Your task to perform on an android device: open sync settings in chrome Image 0: 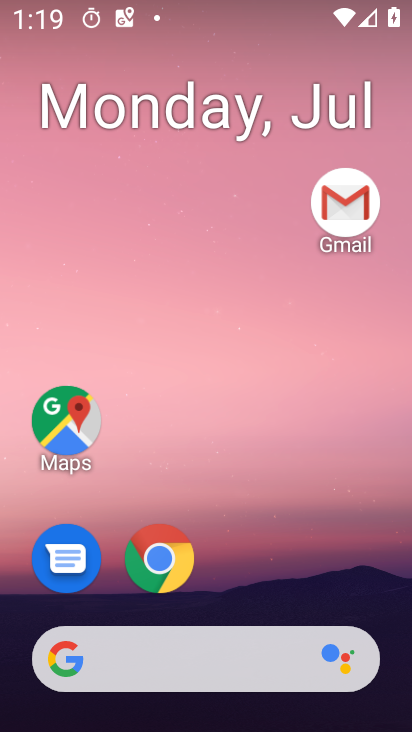
Step 0: drag from (370, 562) to (375, 75)
Your task to perform on an android device: open sync settings in chrome Image 1: 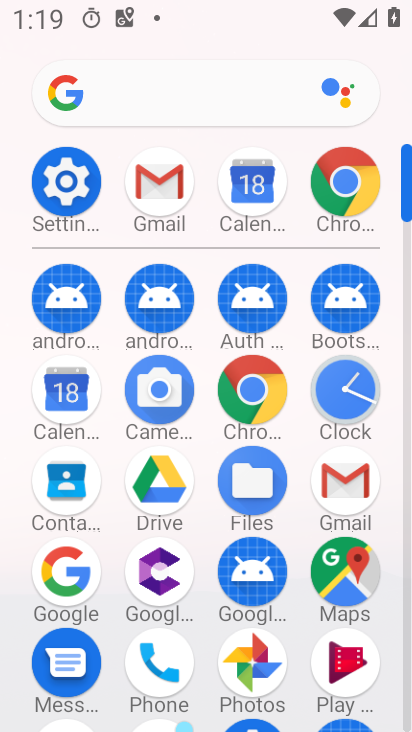
Step 1: click (262, 405)
Your task to perform on an android device: open sync settings in chrome Image 2: 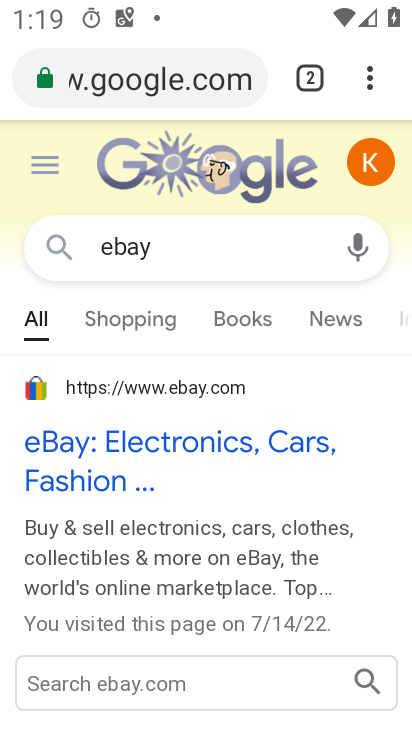
Step 2: click (368, 84)
Your task to perform on an android device: open sync settings in chrome Image 3: 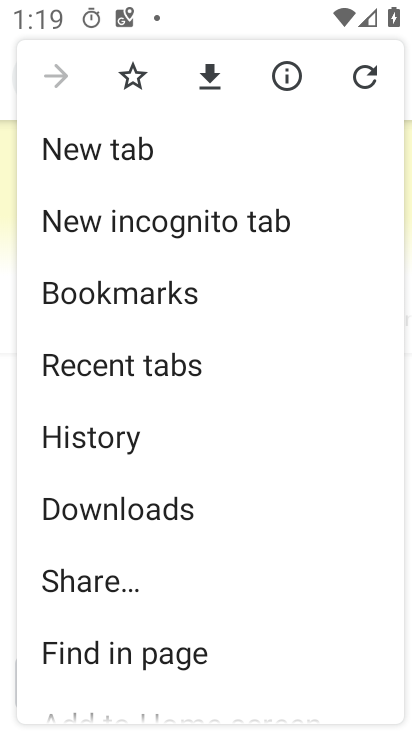
Step 3: drag from (300, 501) to (317, 420)
Your task to perform on an android device: open sync settings in chrome Image 4: 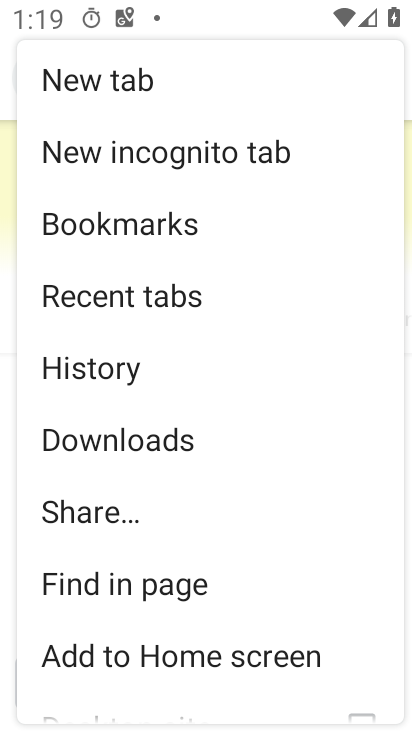
Step 4: drag from (317, 491) to (317, 413)
Your task to perform on an android device: open sync settings in chrome Image 5: 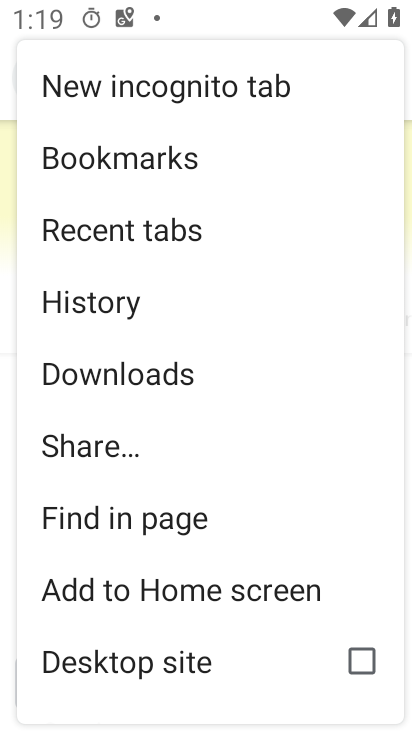
Step 5: drag from (316, 503) to (323, 402)
Your task to perform on an android device: open sync settings in chrome Image 6: 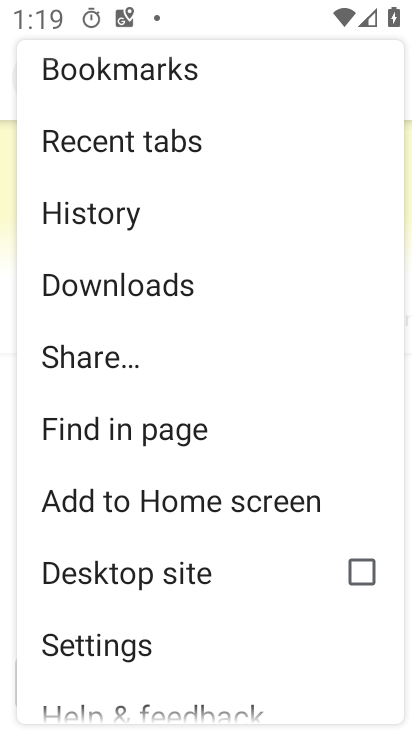
Step 6: drag from (292, 566) to (316, 431)
Your task to perform on an android device: open sync settings in chrome Image 7: 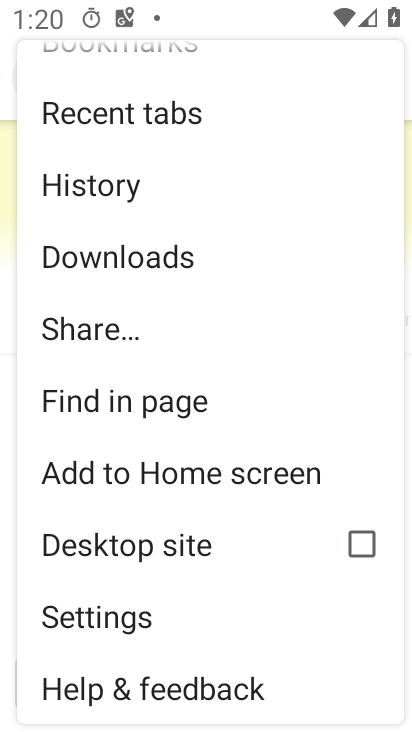
Step 7: click (230, 624)
Your task to perform on an android device: open sync settings in chrome Image 8: 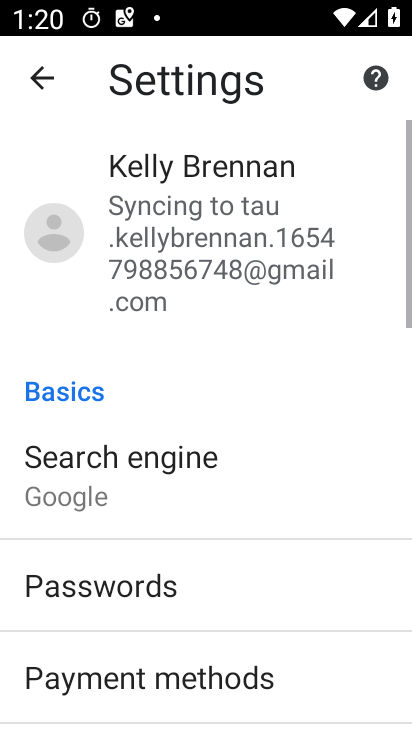
Step 8: drag from (283, 597) to (302, 501)
Your task to perform on an android device: open sync settings in chrome Image 9: 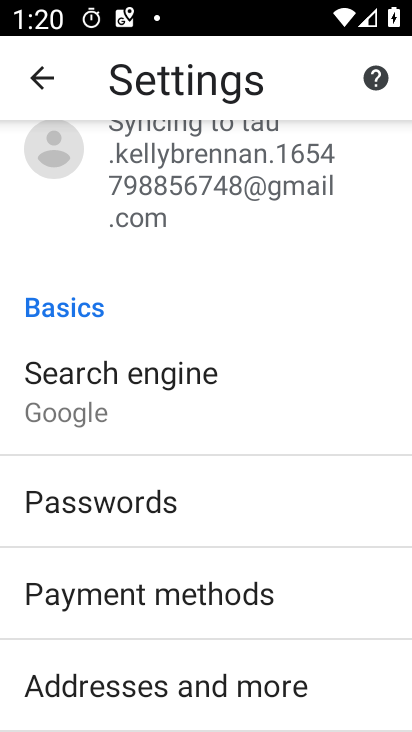
Step 9: drag from (330, 580) to (350, 474)
Your task to perform on an android device: open sync settings in chrome Image 10: 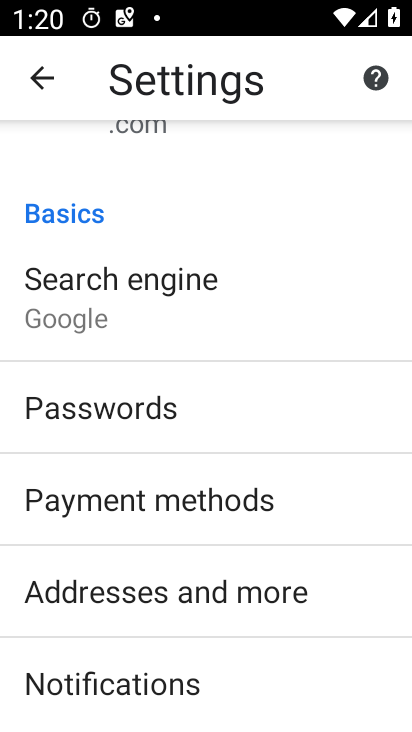
Step 10: drag from (354, 572) to (364, 488)
Your task to perform on an android device: open sync settings in chrome Image 11: 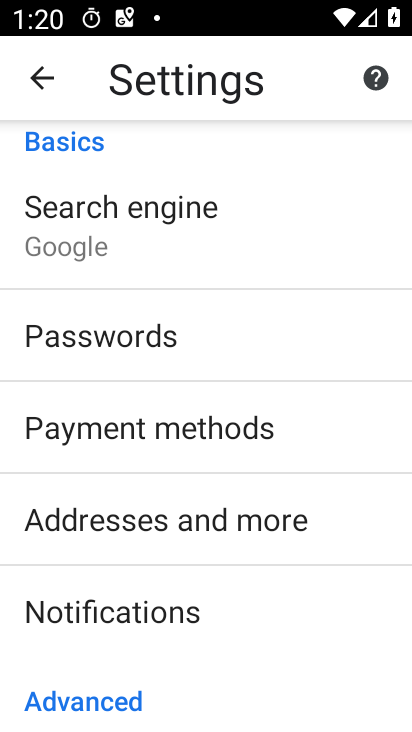
Step 11: drag from (342, 595) to (352, 511)
Your task to perform on an android device: open sync settings in chrome Image 12: 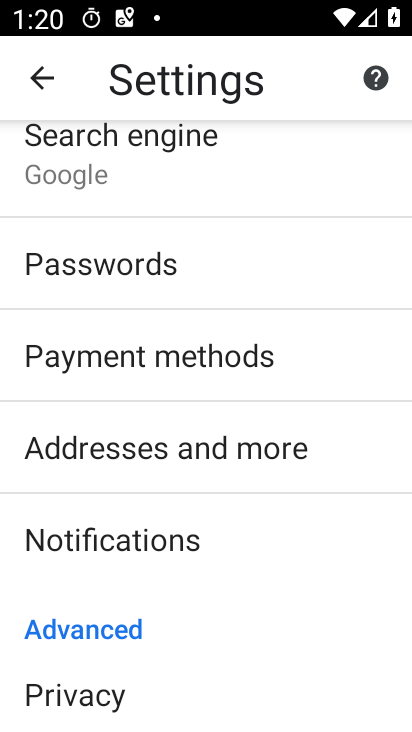
Step 12: drag from (352, 576) to (351, 466)
Your task to perform on an android device: open sync settings in chrome Image 13: 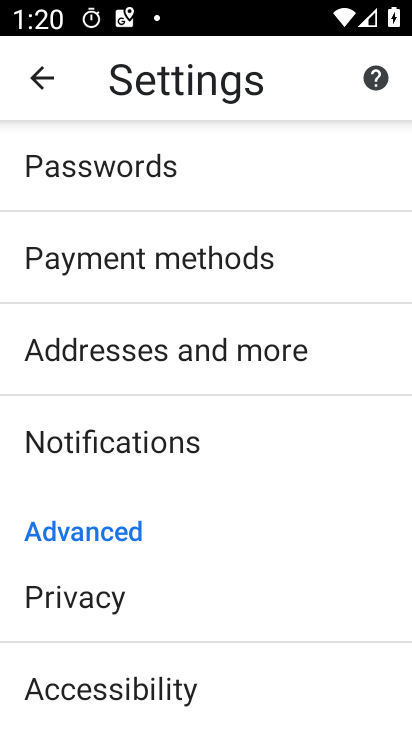
Step 13: drag from (326, 579) to (332, 484)
Your task to perform on an android device: open sync settings in chrome Image 14: 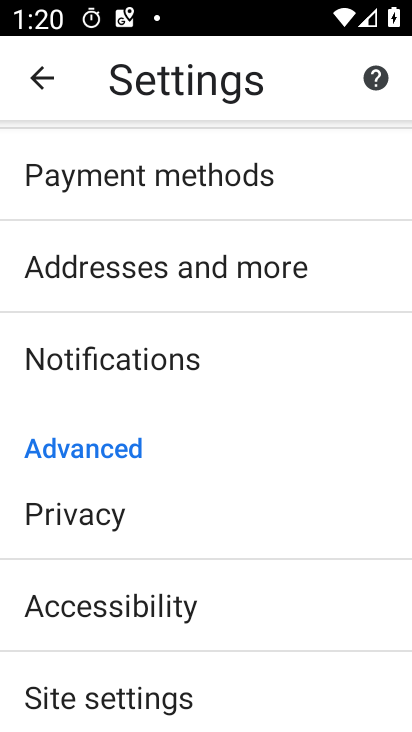
Step 14: drag from (323, 619) to (333, 519)
Your task to perform on an android device: open sync settings in chrome Image 15: 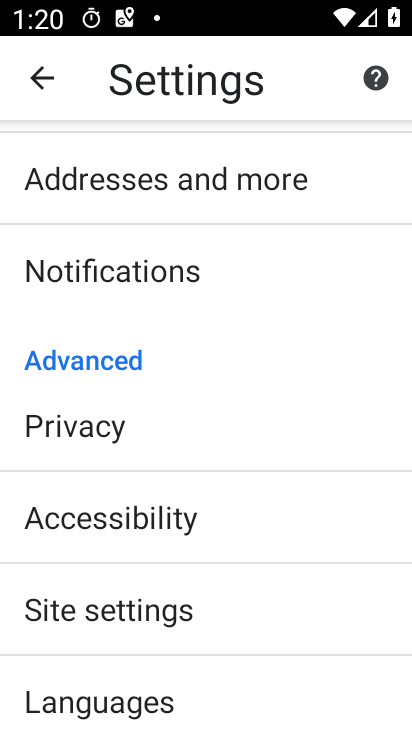
Step 15: drag from (323, 618) to (326, 518)
Your task to perform on an android device: open sync settings in chrome Image 16: 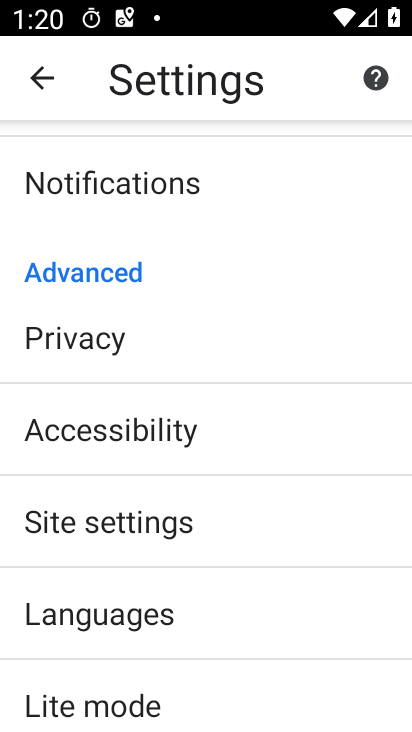
Step 16: drag from (318, 636) to (330, 416)
Your task to perform on an android device: open sync settings in chrome Image 17: 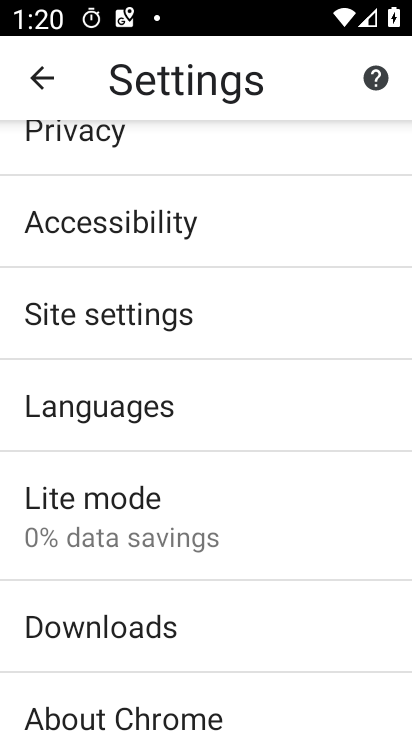
Step 17: click (199, 342)
Your task to perform on an android device: open sync settings in chrome Image 18: 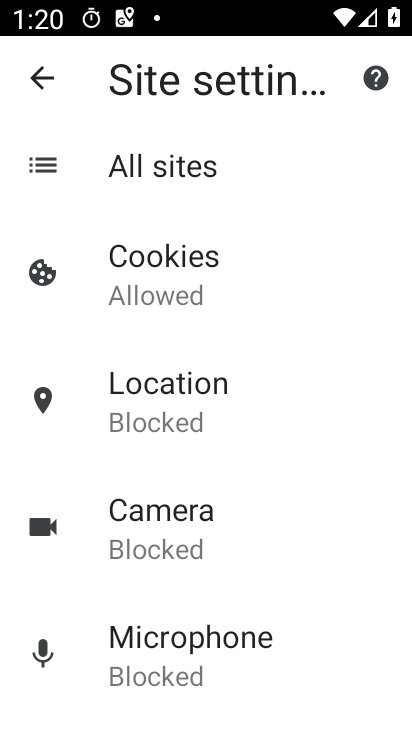
Step 18: drag from (306, 446) to (309, 377)
Your task to perform on an android device: open sync settings in chrome Image 19: 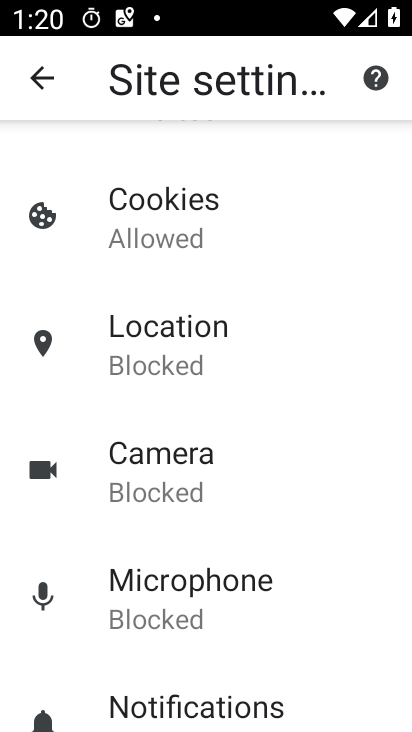
Step 19: drag from (313, 484) to (320, 402)
Your task to perform on an android device: open sync settings in chrome Image 20: 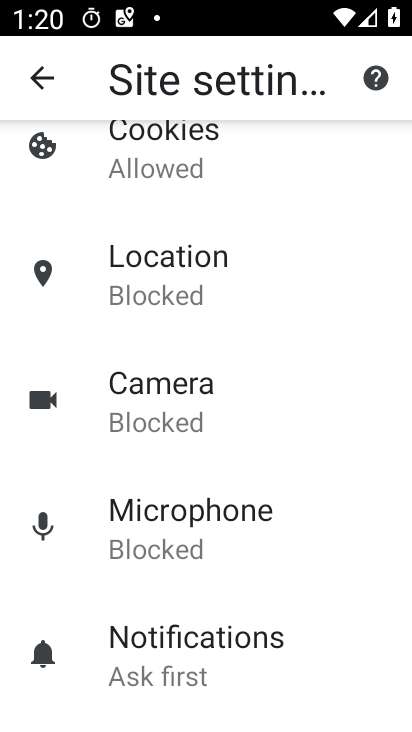
Step 20: drag from (317, 537) to (317, 458)
Your task to perform on an android device: open sync settings in chrome Image 21: 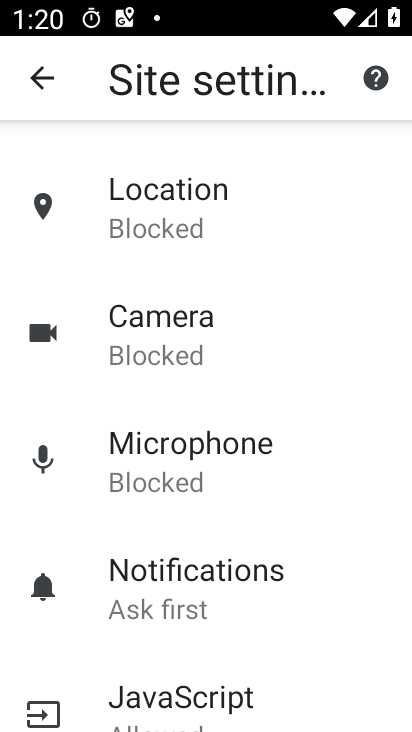
Step 21: drag from (309, 599) to (326, 490)
Your task to perform on an android device: open sync settings in chrome Image 22: 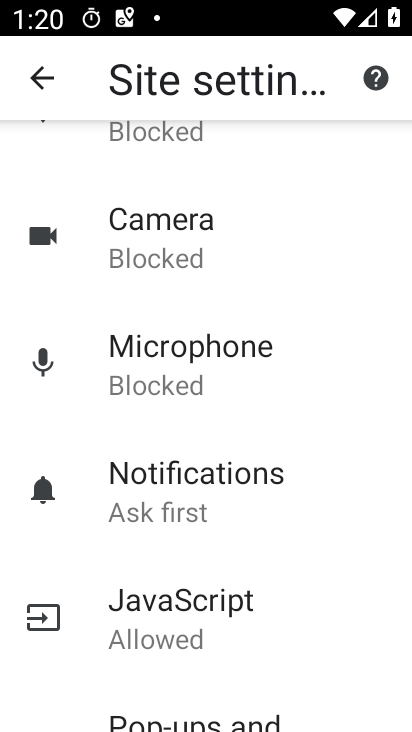
Step 22: drag from (330, 613) to (330, 505)
Your task to perform on an android device: open sync settings in chrome Image 23: 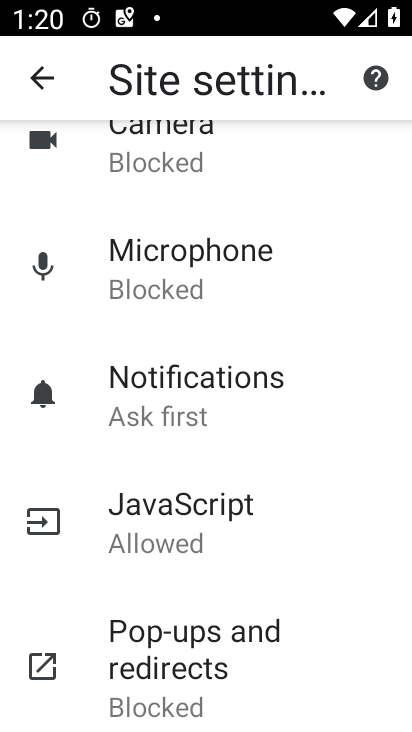
Step 23: drag from (326, 582) to (326, 502)
Your task to perform on an android device: open sync settings in chrome Image 24: 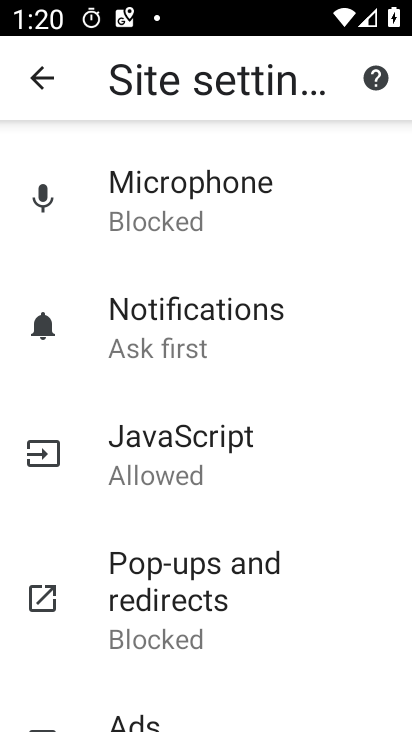
Step 24: drag from (326, 617) to (326, 492)
Your task to perform on an android device: open sync settings in chrome Image 25: 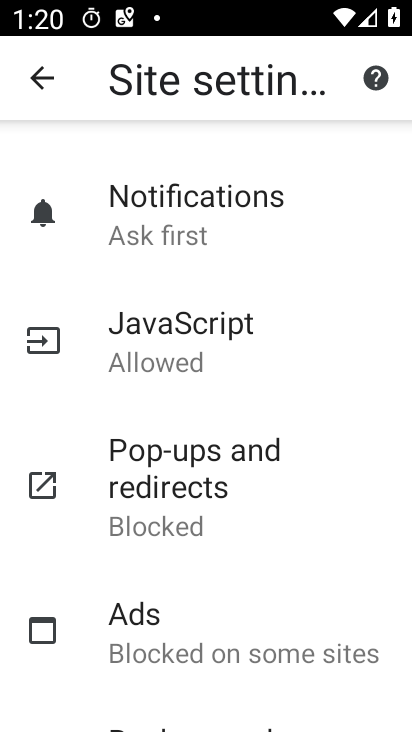
Step 25: drag from (334, 566) to (337, 469)
Your task to perform on an android device: open sync settings in chrome Image 26: 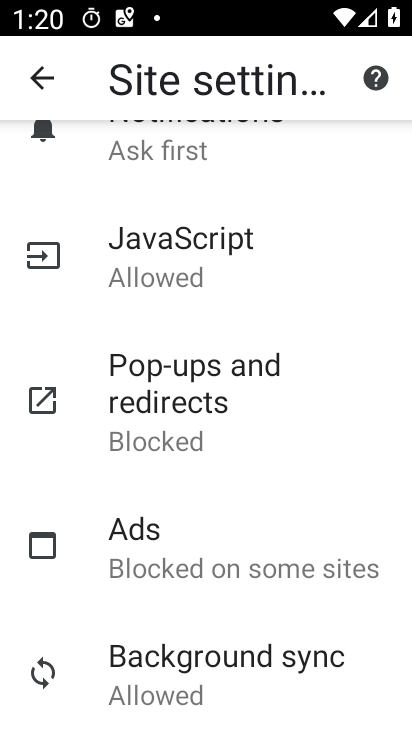
Step 26: drag from (336, 605) to (336, 460)
Your task to perform on an android device: open sync settings in chrome Image 27: 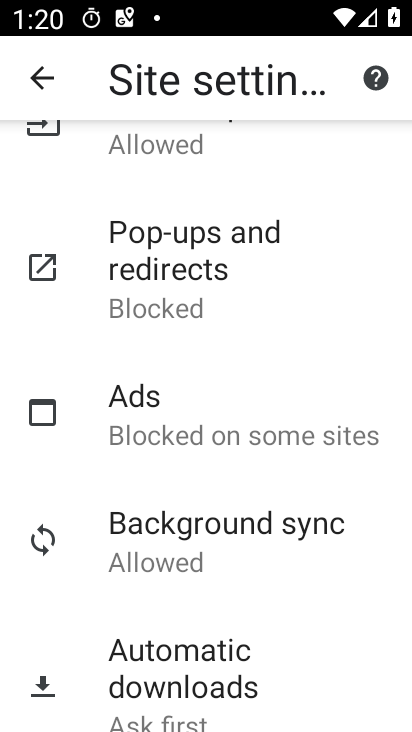
Step 27: drag from (328, 603) to (338, 499)
Your task to perform on an android device: open sync settings in chrome Image 28: 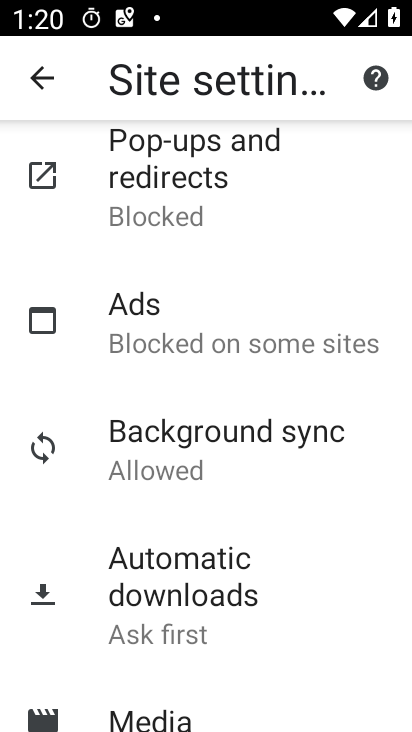
Step 28: click (311, 451)
Your task to perform on an android device: open sync settings in chrome Image 29: 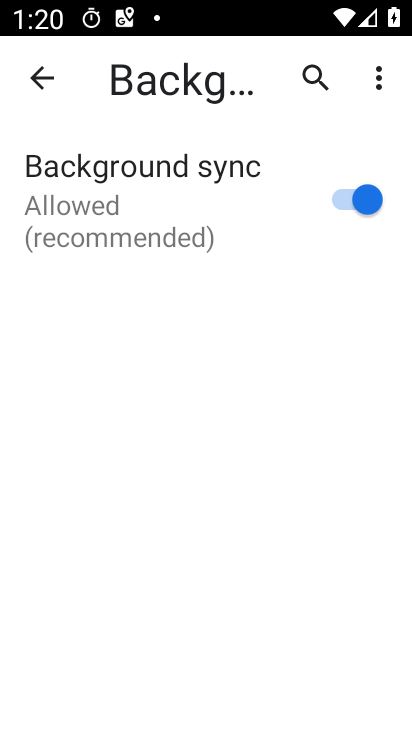
Step 29: task complete